Your task to perform on an android device: Open Maps and search for coffee Image 0: 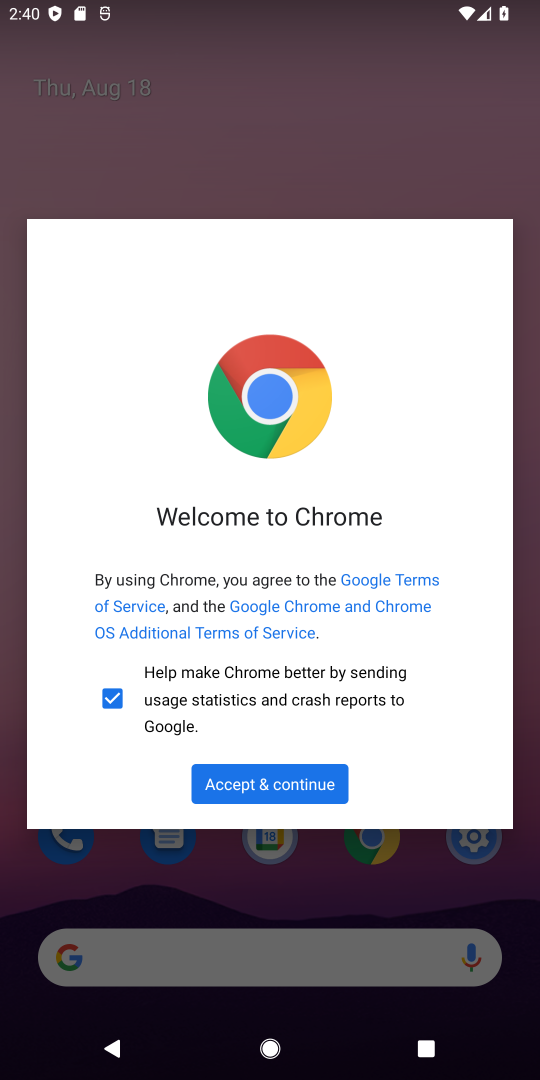
Step 0: press home button
Your task to perform on an android device: Open Maps and search for coffee Image 1: 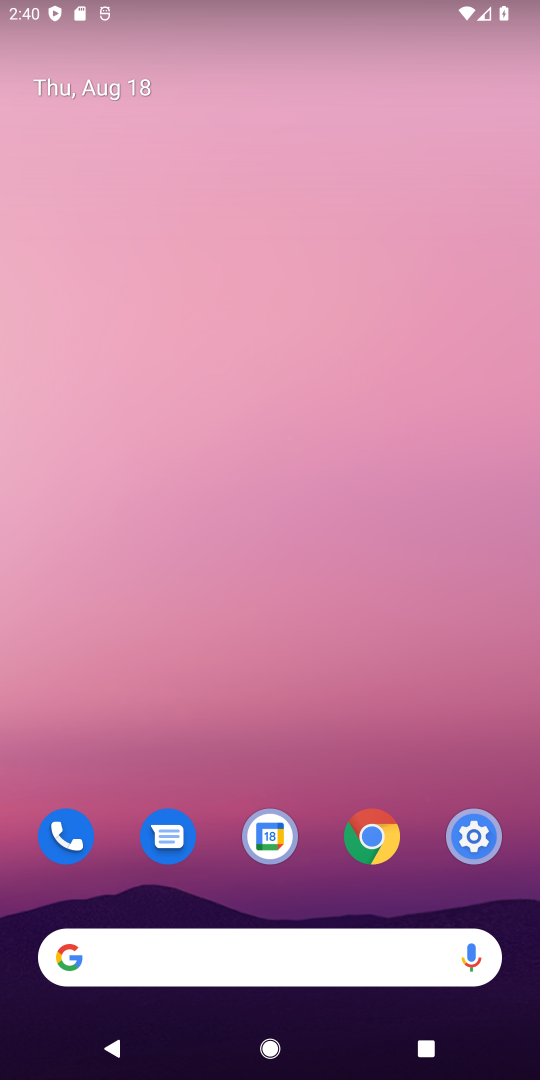
Step 1: drag from (367, 944) to (349, 17)
Your task to perform on an android device: Open Maps and search for coffee Image 2: 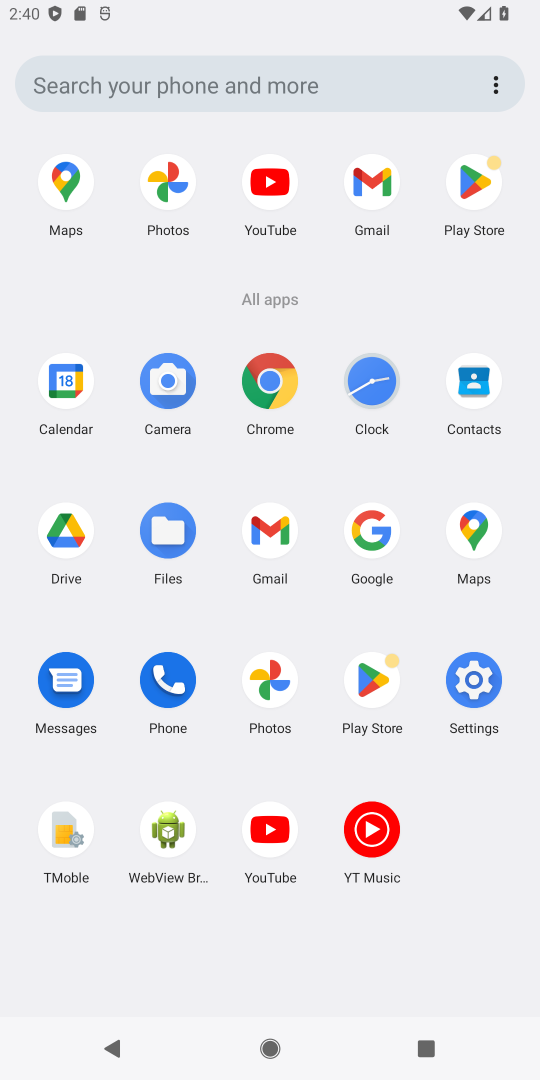
Step 2: click (468, 502)
Your task to perform on an android device: Open Maps and search for coffee Image 3: 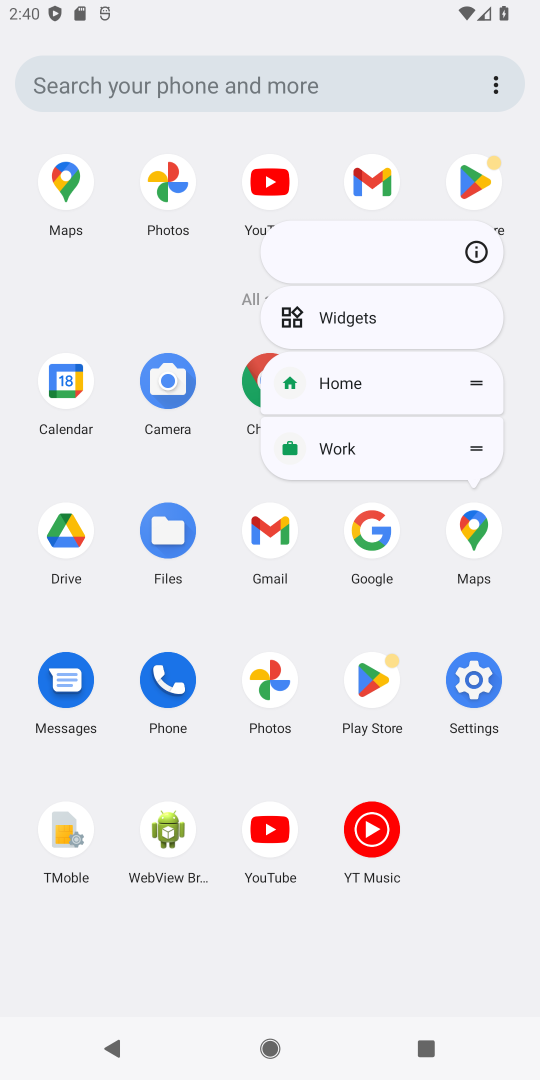
Step 3: click (469, 525)
Your task to perform on an android device: Open Maps and search for coffee Image 4: 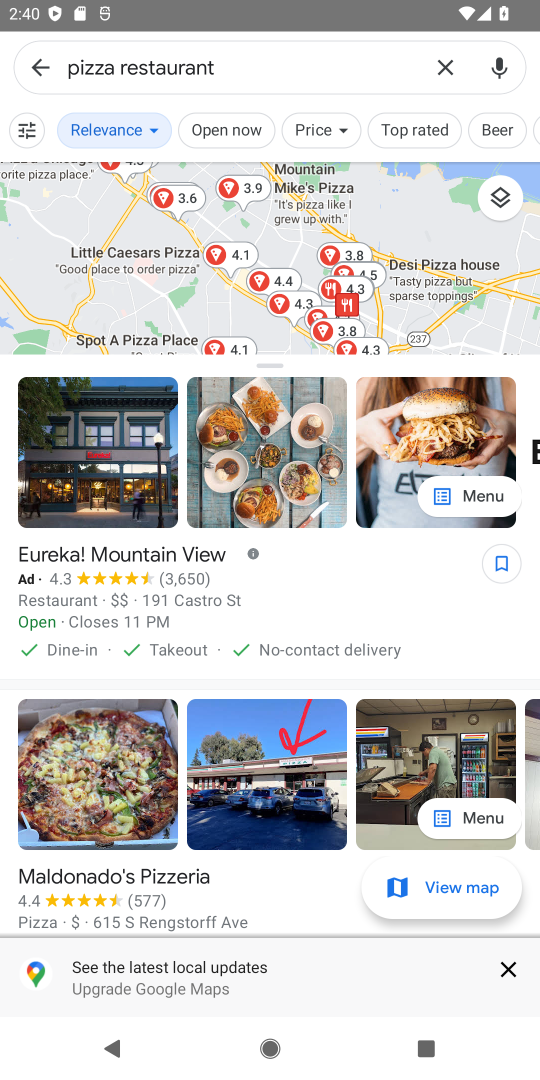
Step 4: click (449, 72)
Your task to perform on an android device: Open Maps and search for coffee Image 5: 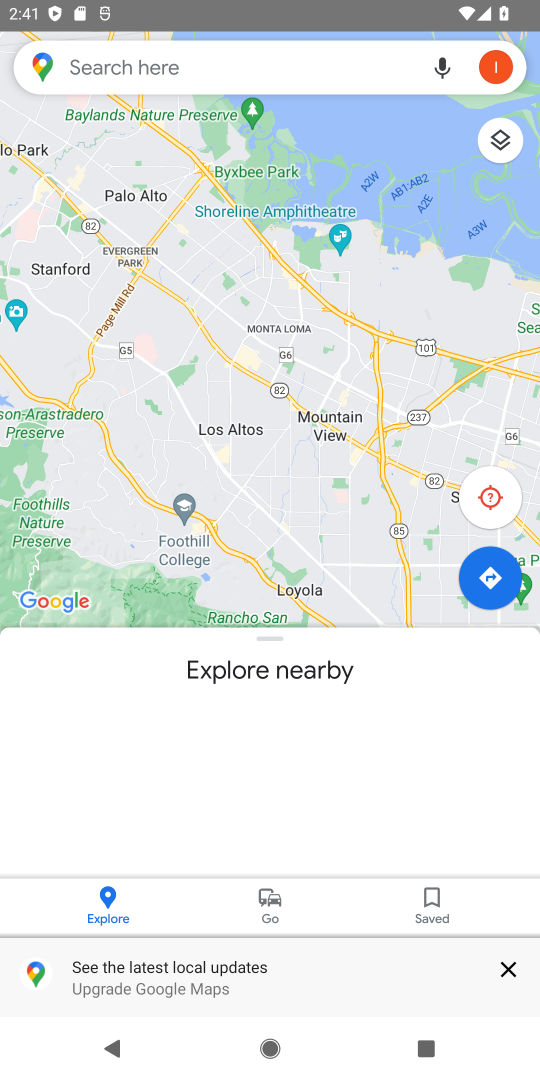
Step 5: click (255, 59)
Your task to perform on an android device: Open Maps and search for coffee Image 6: 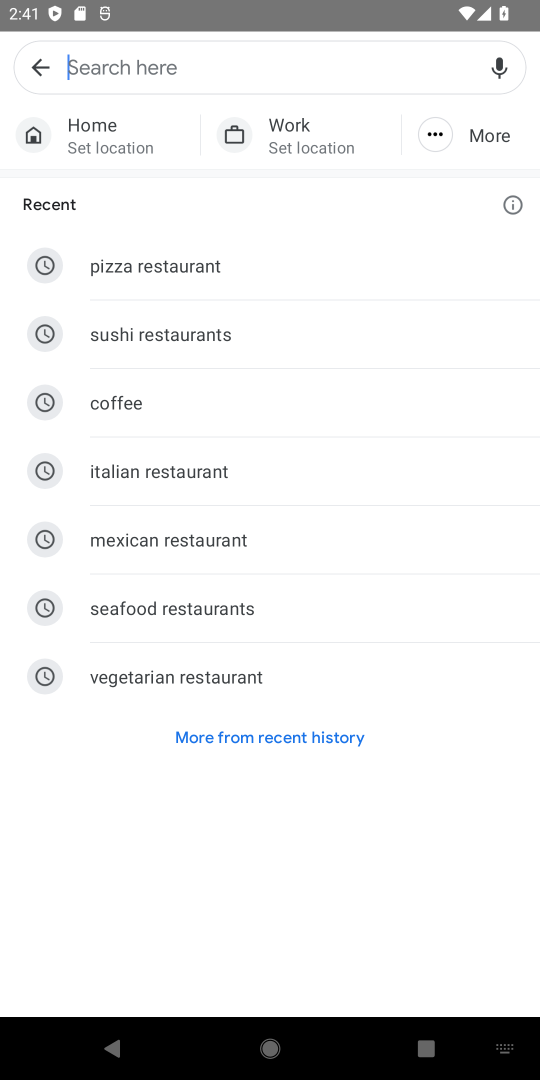
Step 6: click (122, 397)
Your task to perform on an android device: Open Maps and search for coffee Image 7: 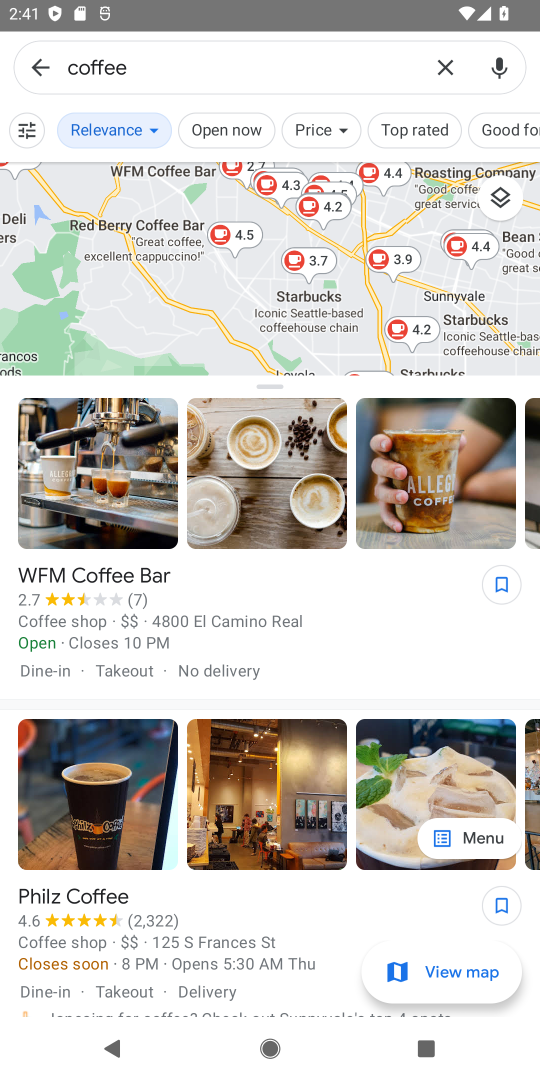
Step 7: task complete